Your task to perform on an android device: turn on improve location accuracy Image 0: 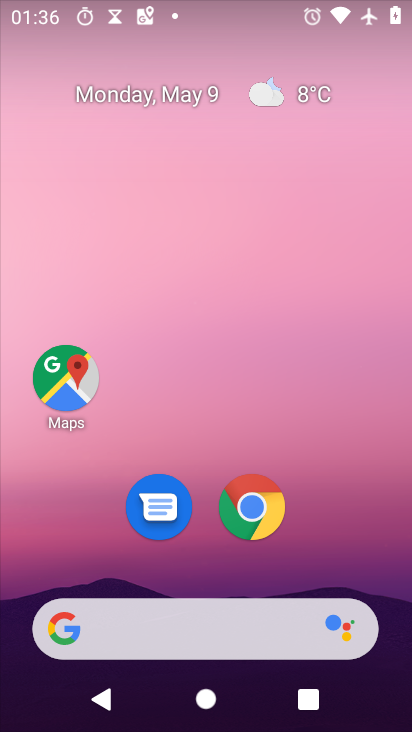
Step 0: drag from (228, 724) to (229, 146)
Your task to perform on an android device: turn on improve location accuracy Image 1: 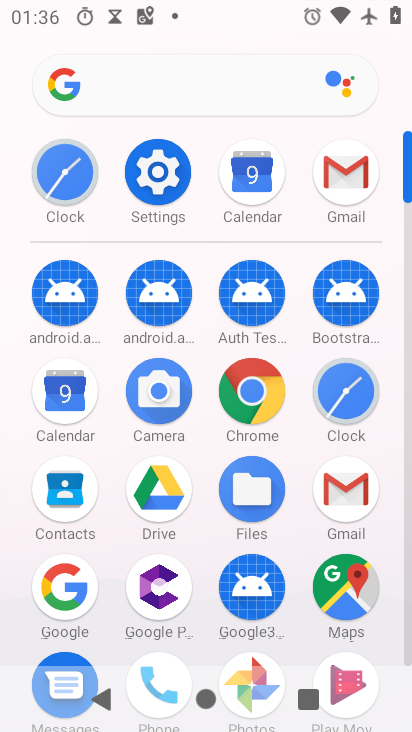
Step 1: click (169, 173)
Your task to perform on an android device: turn on improve location accuracy Image 2: 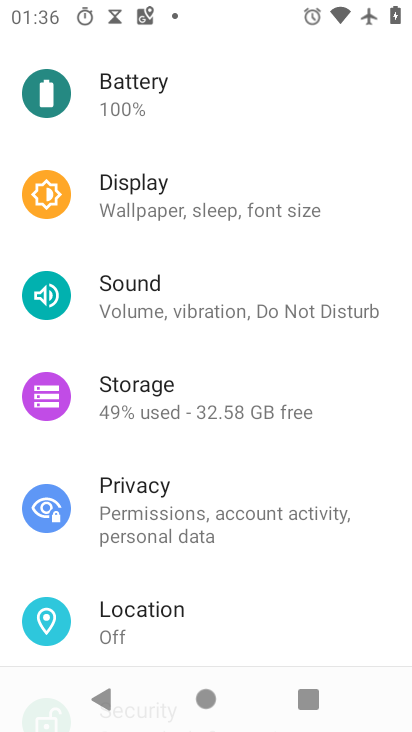
Step 2: click (134, 604)
Your task to perform on an android device: turn on improve location accuracy Image 3: 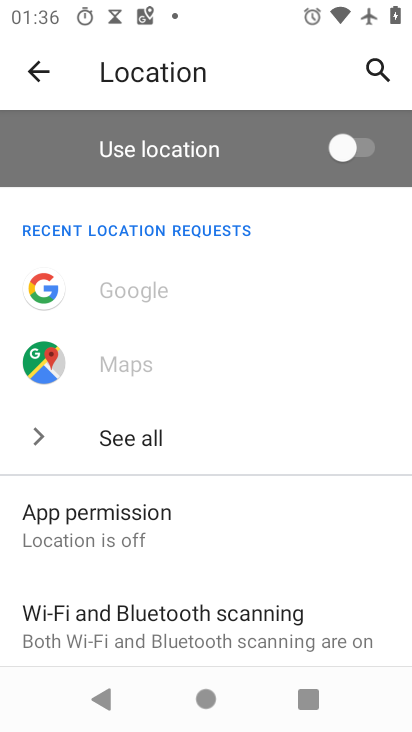
Step 3: drag from (184, 596) to (186, 320)
Your task to perform on an android device: turn on improve location accuracy Image 4: 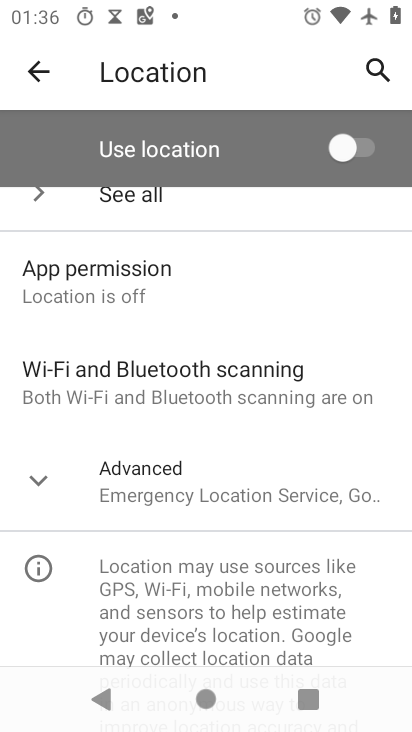
Step 4: click (160, 479)
Your task to perform on an android device: turn on improve location accuracy Image 5: 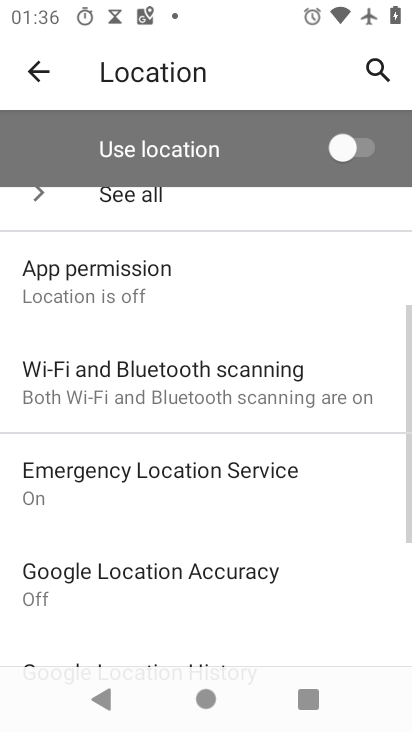
Step 5: drag from (185, 621) to (199, 439)
Your task to perform on an android device: turn on improve location accuracy Image 6: 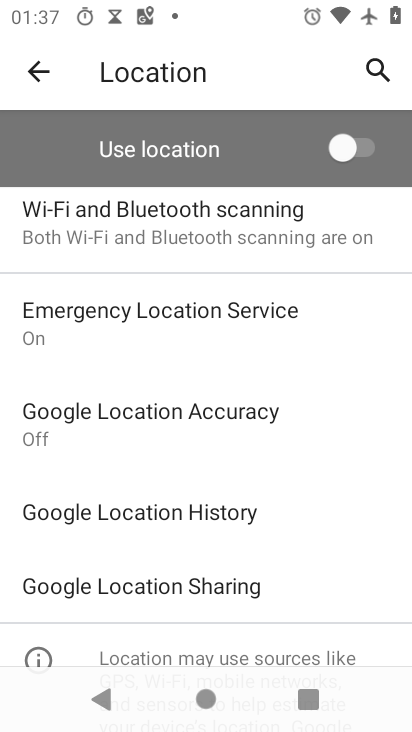
Step 6: click (164, 405)
Your task to perform on an android device: turn on improve location accuracy Image 7: 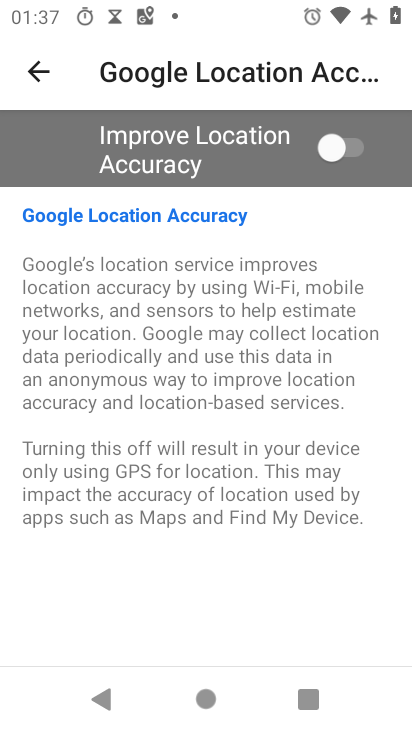
Step 7: click (349, 148)
Your task to perform on an android device: turn on improve location accuracy Image 8: 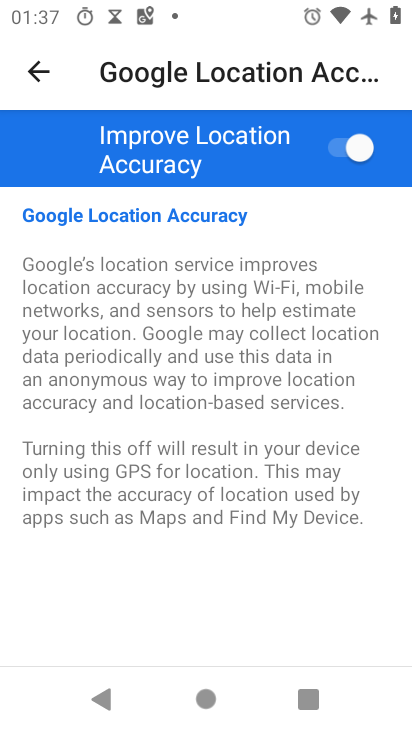
Step 8: task complete